Your task to perform on an android device: change the clock display to show seconds Image 0: 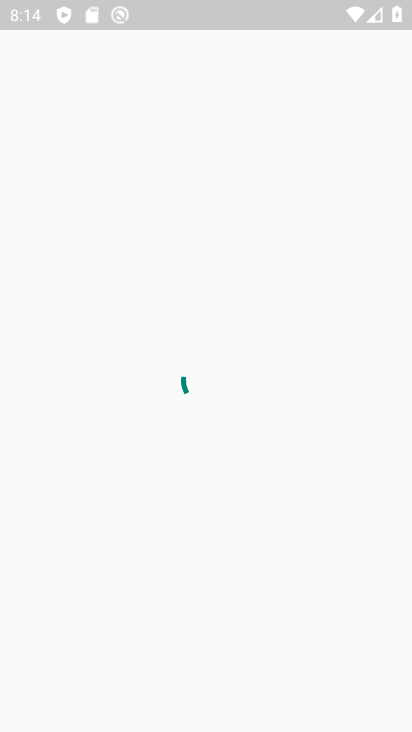
Step 0: press home button
Your task to perform on an android device: change the clock display to show seconds Image 1: 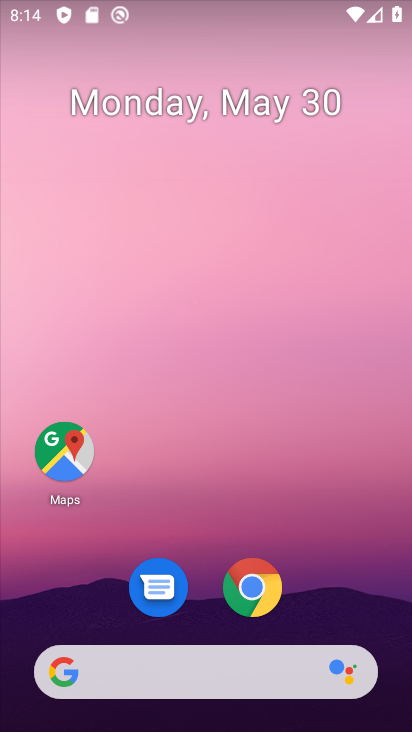
Step 1: drag from (206, 524) to (273, 13)
Your task to perform on an android device: change the clock display to show seconds Image 2: 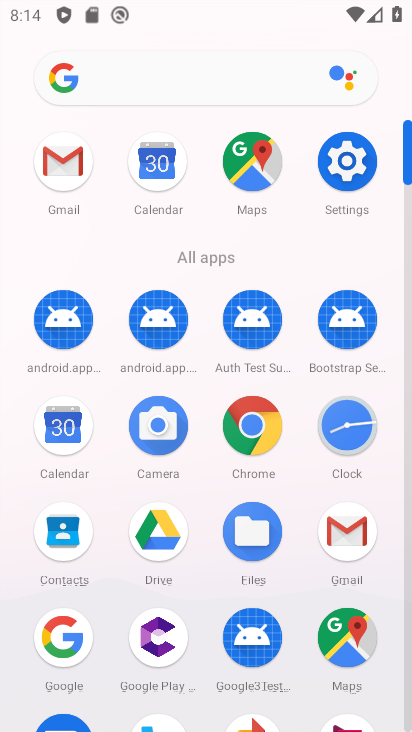
Step 2: click (355, 434)
Your task to perform on an android device: change the clock display to show seconds Image 3: 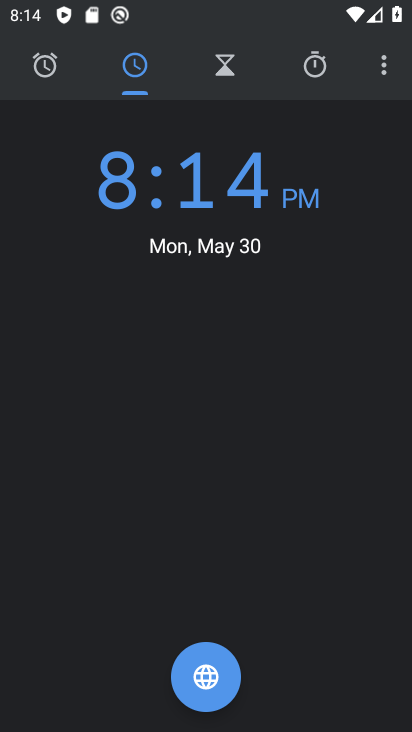
Step 3: click (386, 60)
Your task to perform on an android device: change the clock display to show seconds Image 4: 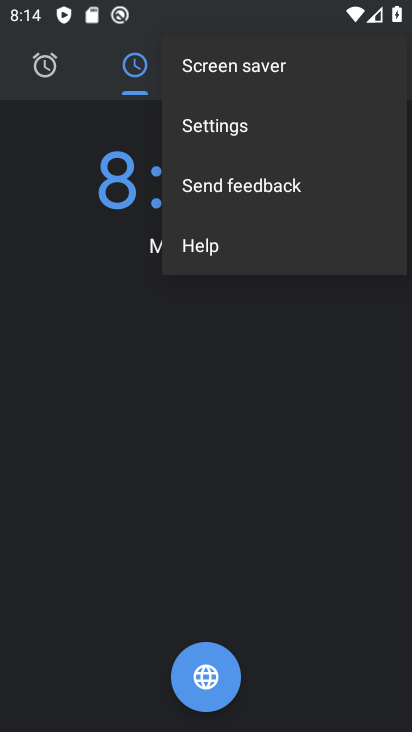
Step 4: click (239, 122)
Your task to perform on an android device: change the clock display to show seconds Image 5: 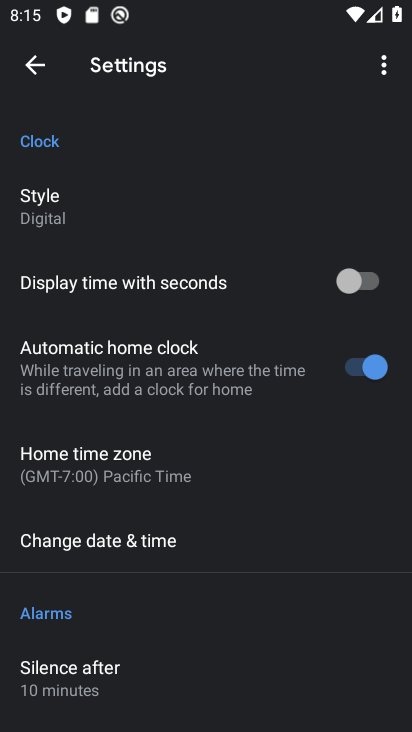
Step 5: click (375, 282)
Your task to perform on an android device: change the clock display to show seconds Image 6: 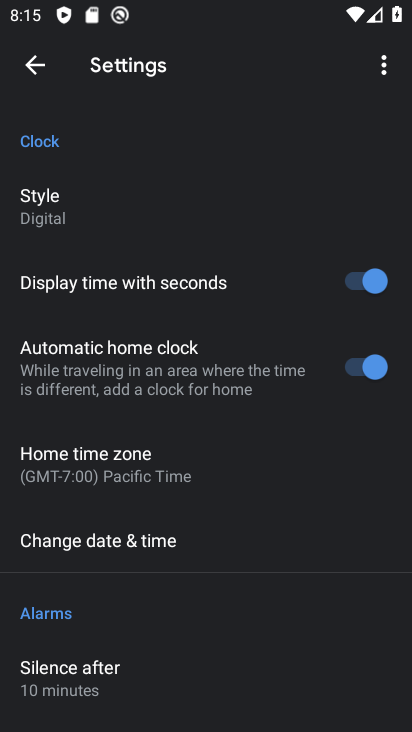
Step 6: task complete